Your task to perform on an android device: refresh tabs in the chrome app Image 0: 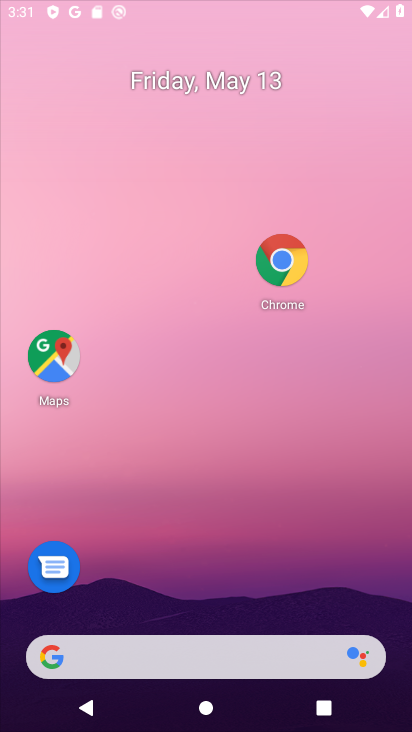
Step 0: click (349, 427)
Your task to perform on an android device: refresh tabs in the chrome app Image 1: 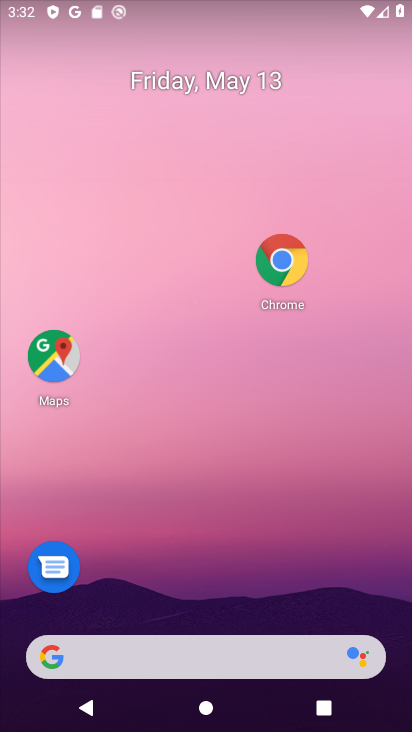
Step 1: drag from (248, 554) to (198, 8)
Your task to perform on an android device: refresh tabs in the chrome app Image 2: 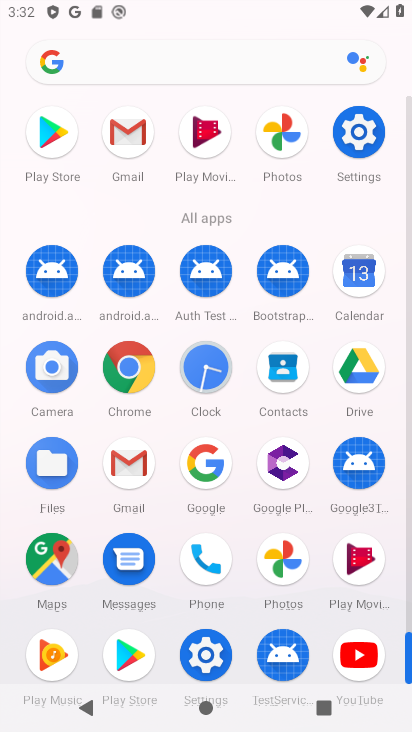
Step 2: click (129, 376)
Your task to perform on an android device: refresh tabs in the chrome app Image 3: 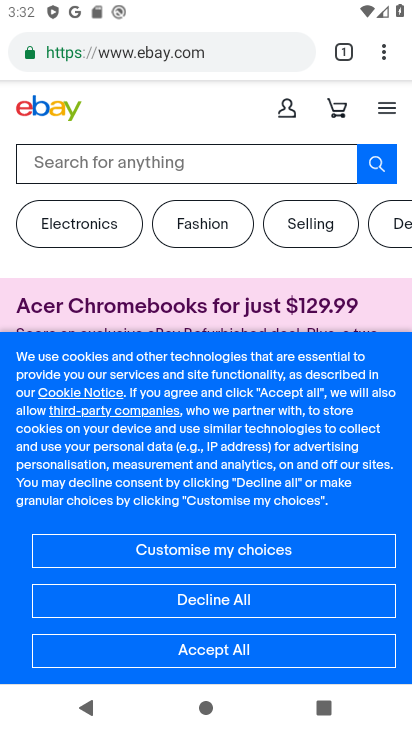
Step 3: click (388, 51)
Your task to perform on an android device: refresh tabs in the chrome app Image 4: 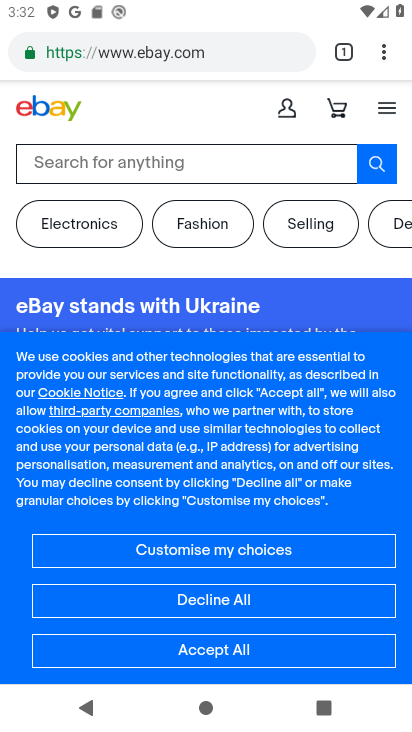
Step 4: click (386, 49)
Your task to perform on an android device: refresh tabs in the chrome app Image 5: 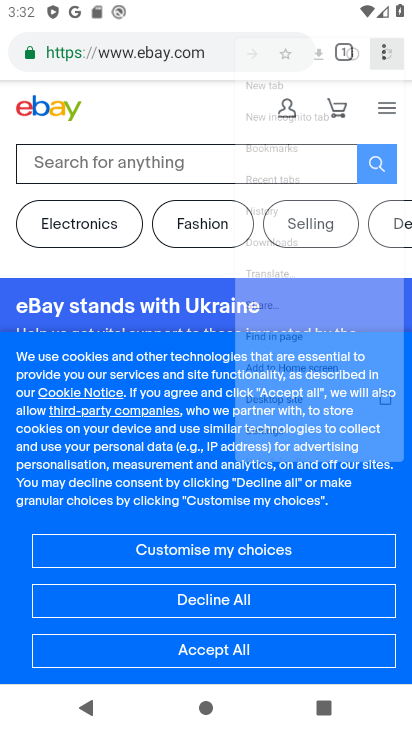
Step 5: click (385, 51)
Your task to perform on an android device: refresh tabs in the chrome app Image 6: 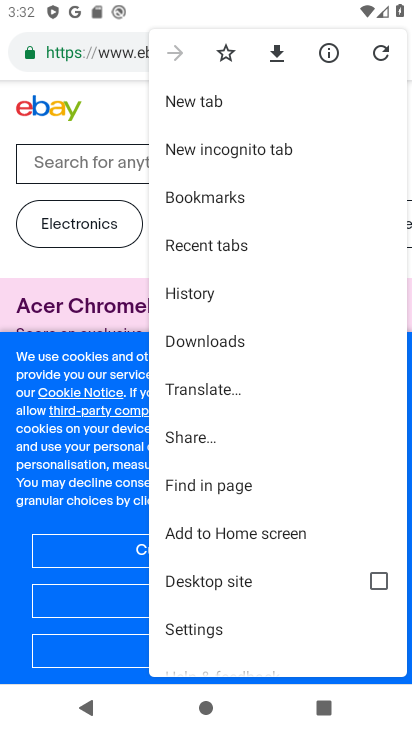
Step 6: task complete